Your task to perform on an android device: Open calendar and show me the third week of next month Image 0: 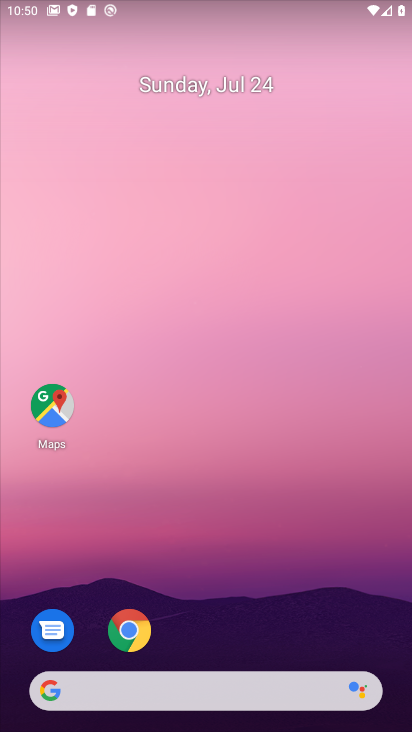
Step 0: drag from (206, 596) to (189, 60)
Your task to perform on an android device: Open calendar and show me the third week of next month Image 1: 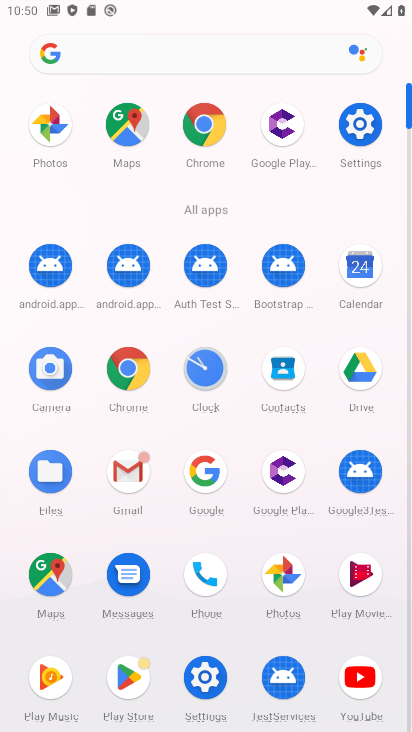
Step 1: click (355, 274)
Your task to perform on an android device: Open calendar and show me the third week of next month Image 2: 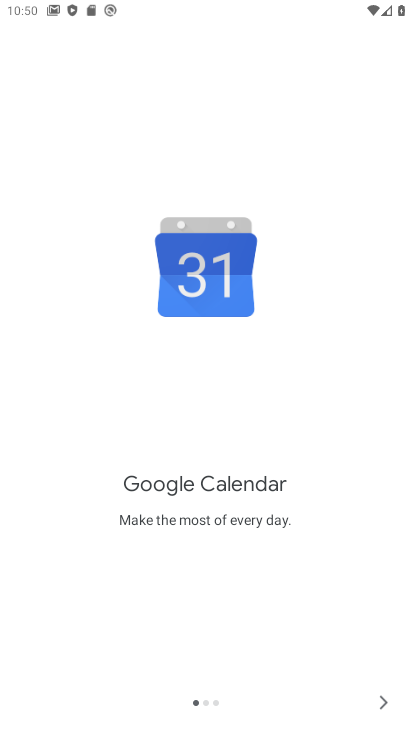
Step 2: click (386, 702)
Your task to perform on an android device: Open calendar and show me the third week of next month Image 3: 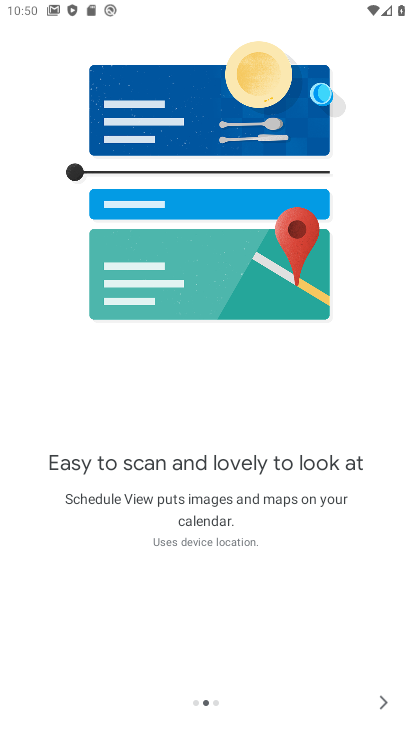
Step 3: click (386, 702)
Your task to perform on an android device: Open calendar and show me the third week of next month Image 4: 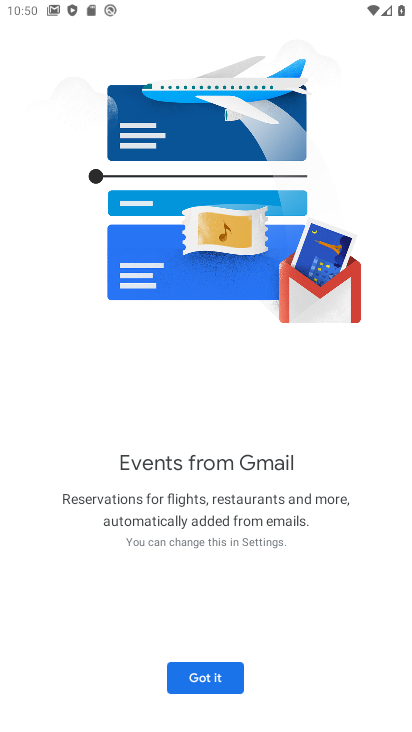
Step 4: click (220, 671)
Your task to perform on an android device: Open calendar and show me the third week of next month Image 5: 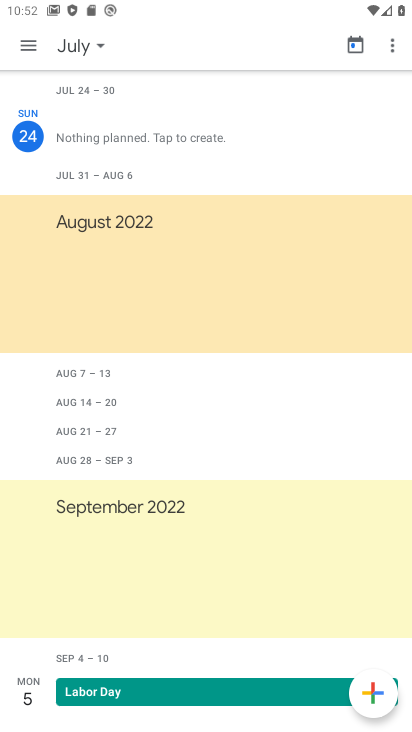
Step 5: press home button
Your task to perform on an android device: Open calendar and show me the third week of next month Image 6: 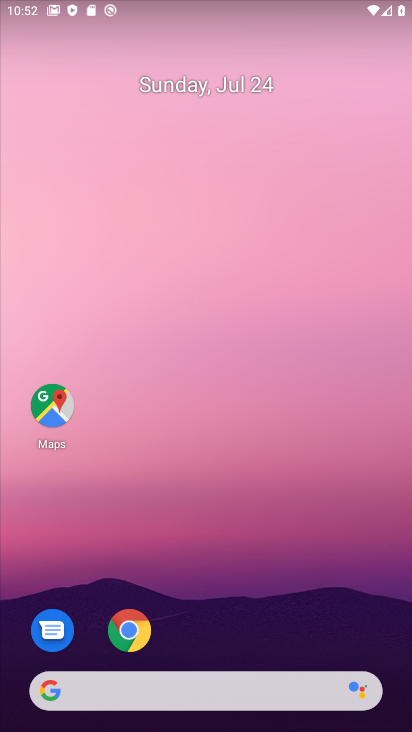
Step 6: drag from (207, 525) to (192, 80)
Your task to perform on an android device: Open calendar and show me the third week of next month Image 7: 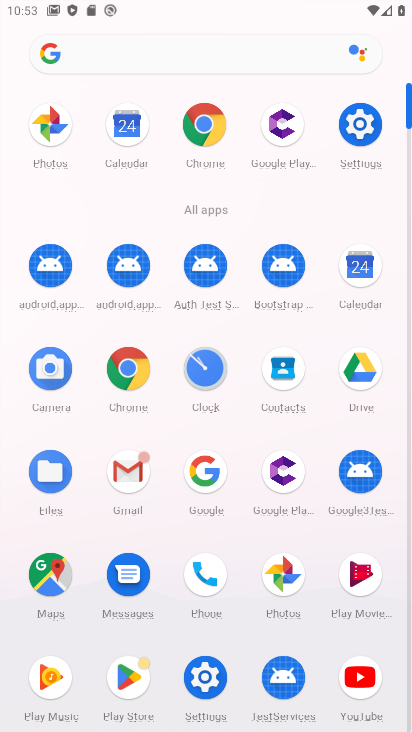
Step 7: click (367, 279)
Your task to perform on an android device: Open calendar and show me the third week of next month Image 8: 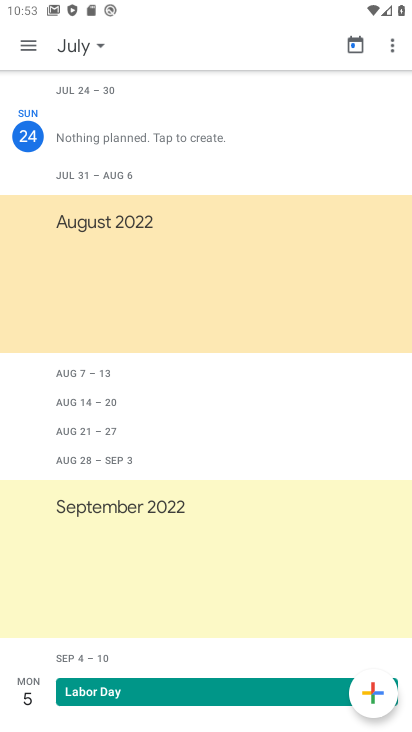
Step 8: click (89, 55)
Your task to perform on an android device: Open calendar and show me the third week of next month Image 9: 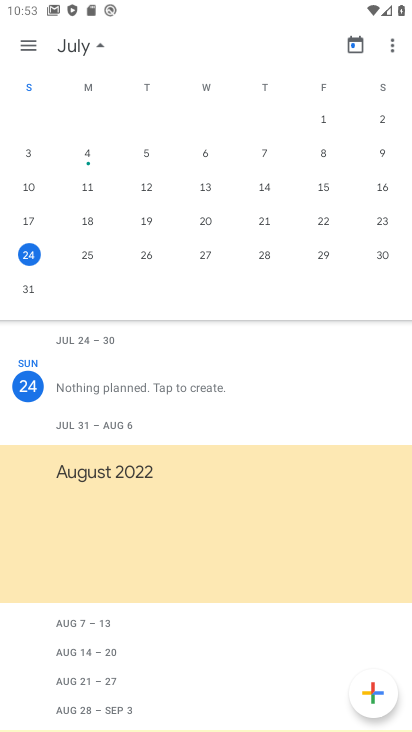
Step 9: drag from (252, 196) to (22, 165)
Your task to perform on an android device: Open calendar and show me the third week of next month Image 10: 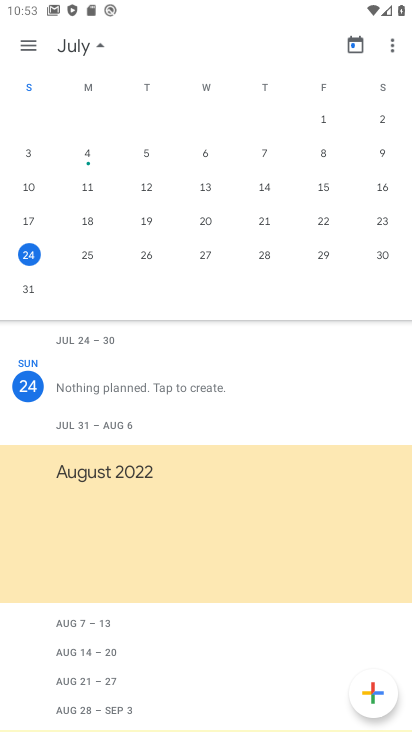
Step 10: drag from (295, 196) to (48, 122)
Your task to perform on an android device: Open calendar and show me the third week of next month Image 11: 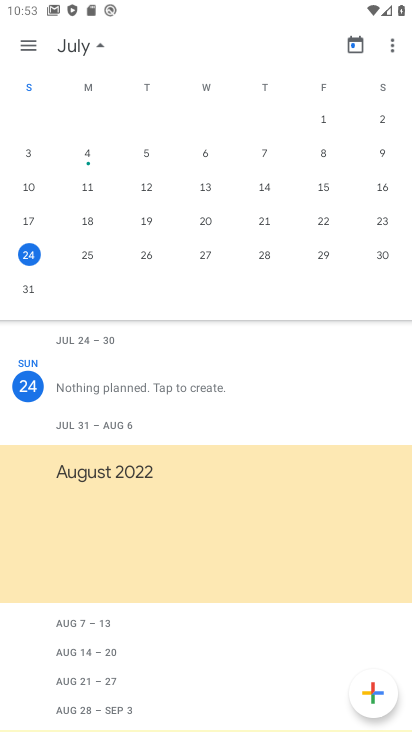
Step 11: drag from (206, 221) to (112, 137)
Your task to perform on an android device: Open calendar and show me the third week of next month Image 12: 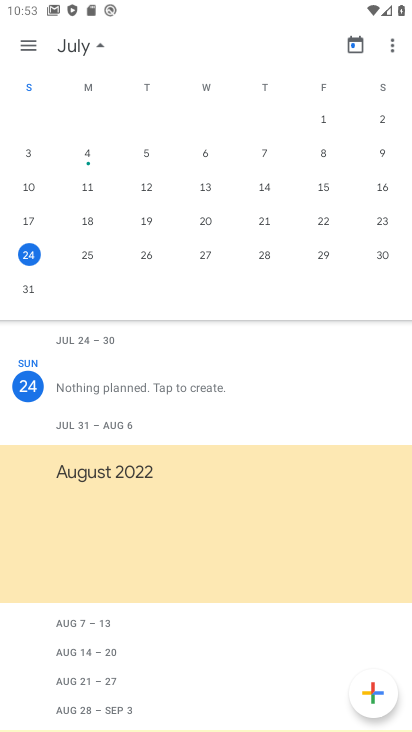
Step 12: drag from (314, 174) to (2, 174)
Your task to perform on an android device: Open calendar and show me the third week of next month Image 13: 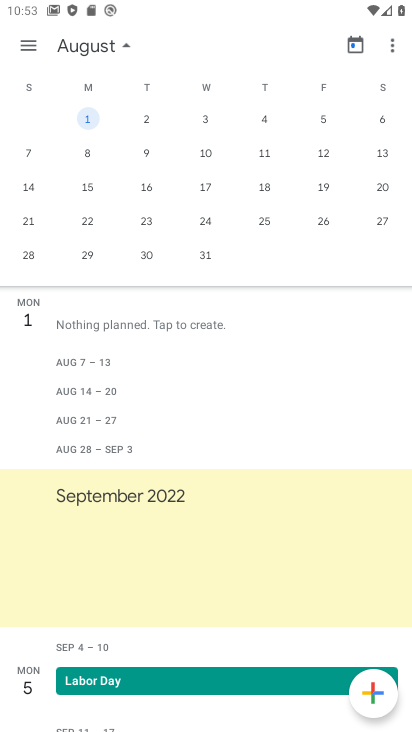
Step 13: click (27, 219)
Your task to perform on an android device: Open calendar and show me the third week of next month Image 14: 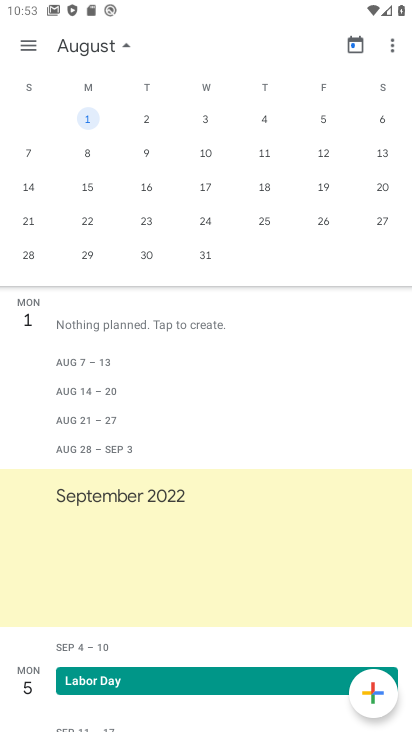
Step 14: click (27, 219)
Your task to perform on an android device: Open calendar and show me the third week of next month Image 15: 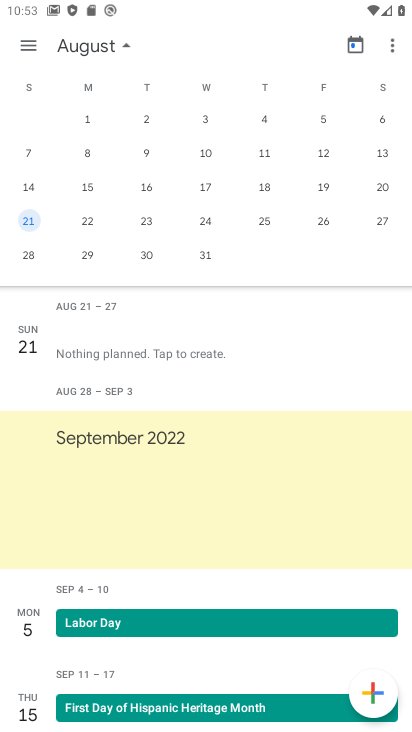
Step 15: click (34, 53)
Your task to perform on an android device: Open calendar and show me the third week of next month Image 16: 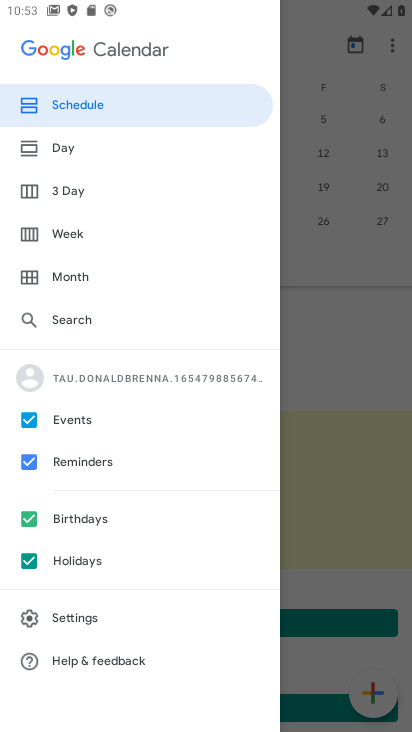
Step 16: click (76, 242)
Your task to perform on an android device: Open calendar and show me the third week of next month Image 17: 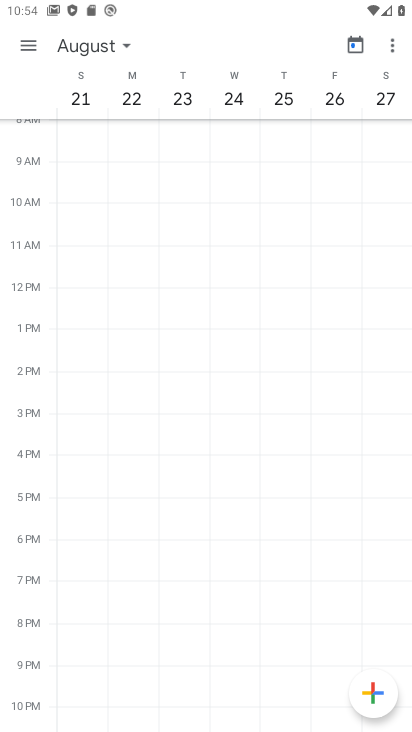
Step 17: task complete